Your task to perform on an android device: toggle sleep mode Image 0: 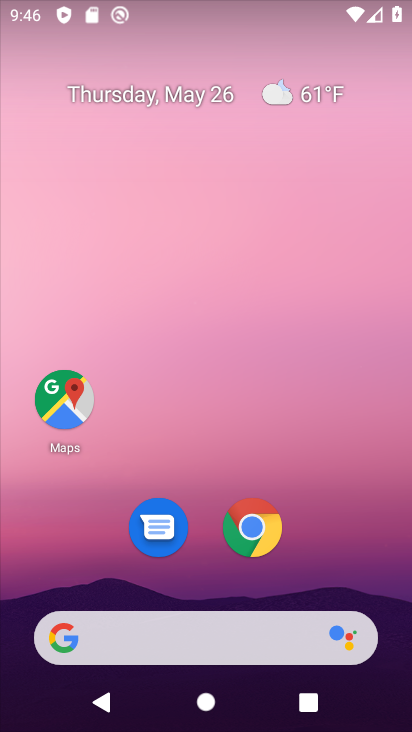
Step 0: click (254, 109)
Your task to perform on an android device: toggle sleep mode Image 1: 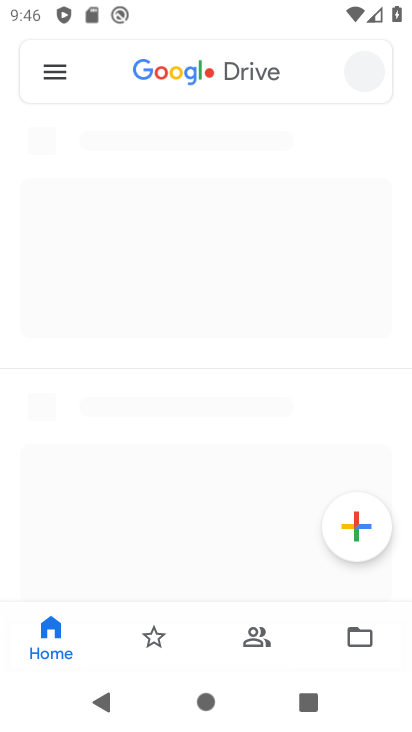
Step 1: press back button
Your task to perform on an android device: toggle sleep mode Image 2: 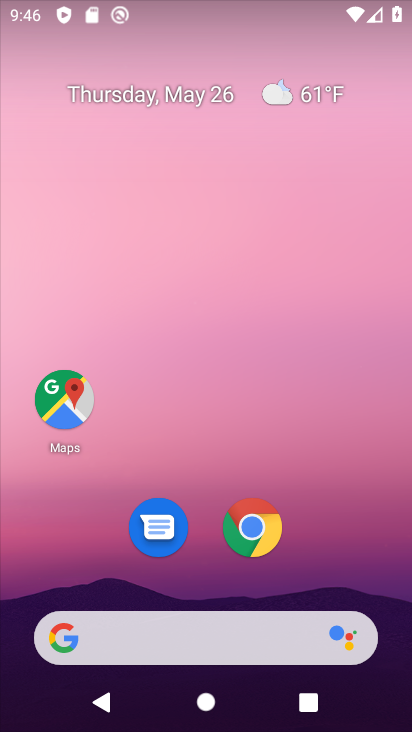
Step 2: drag from (206, 562) to (282, 99)
Your task to perform on an android device: toggle sleep mode Image 3: 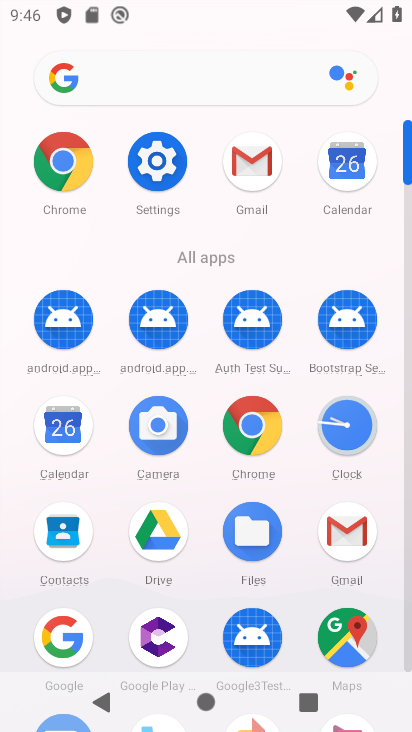
Step 3: click (139, 159)
Your task to perform on an android device: toggle sleep mode Image 4: 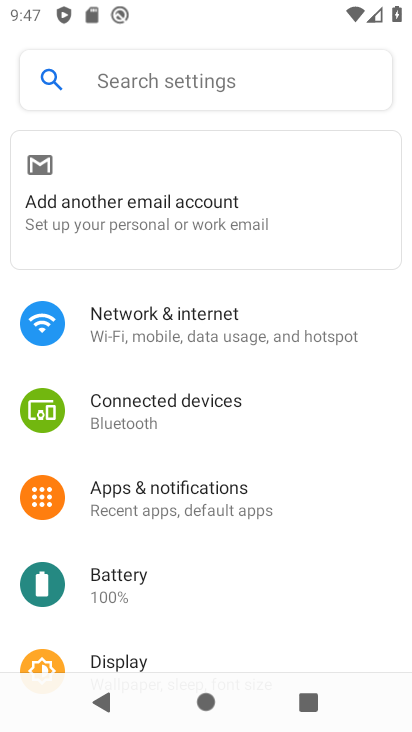
Step 4: click (142, 84)
Your task to perform on an android device: toggle sleep mode Image 5: 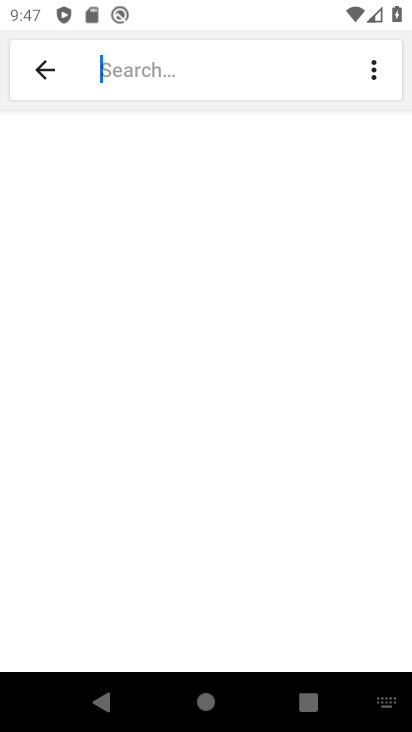
Step 5: type "sleep mode"
Your task to perform on an android device: toggle sleep mode Image 6: 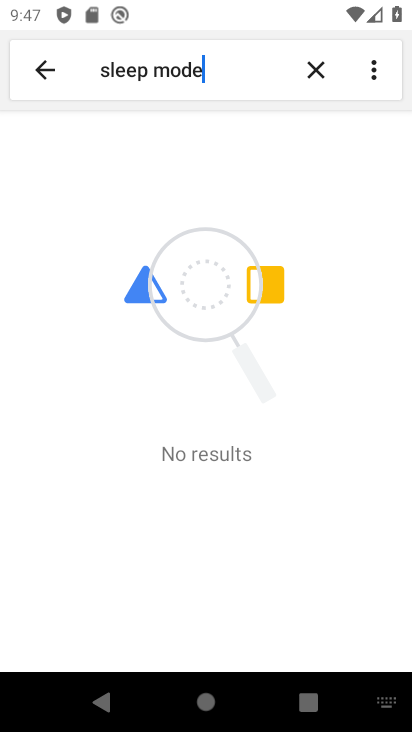
Step 6: task complete